Your task to perform on an android device: toggle data saver in the chrome app Image 0: 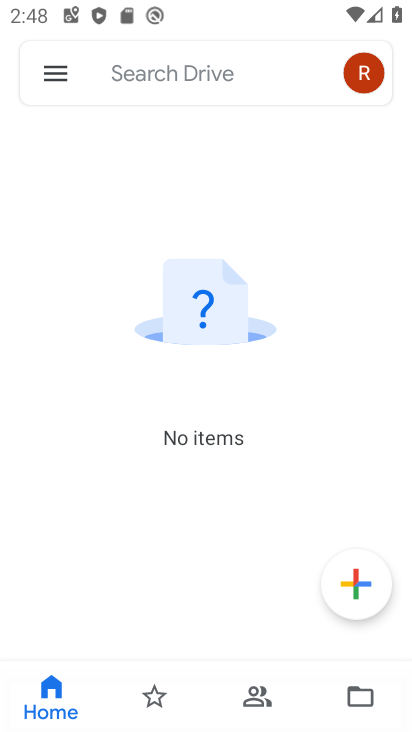
Step 0: press home button
Your task to perform on an android device: toggle data saver in the chrome app Image 1: 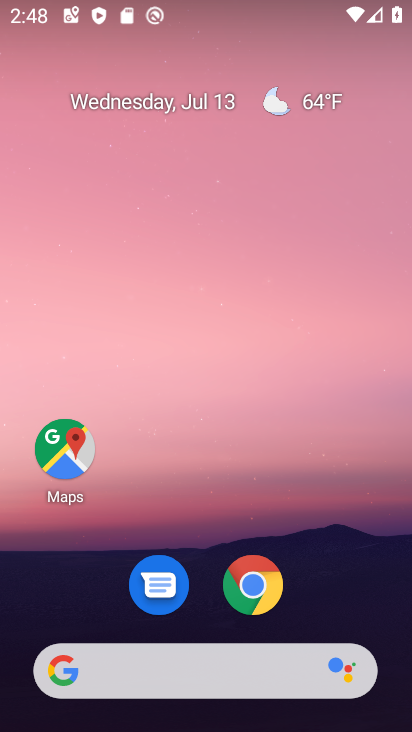
Step 1: click (252, 596)
Your task to perform on an android device: toggle data saver in the chrome app Image 2: 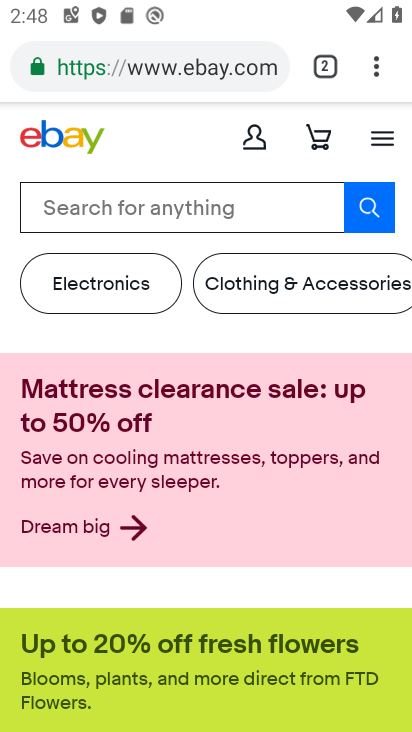
Step 2: drag from (374, 71) to (198, 592)
Your task to perform on an android device: toggle data saver in the chrome app Image 3: 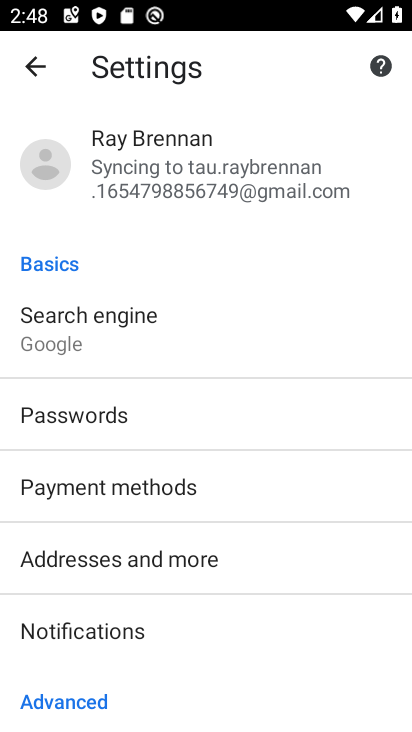
Step 3: drag from (158, 652) to (291, 298)
Your task to perform on an android device: toggle data saver in the chrome app Image 4: 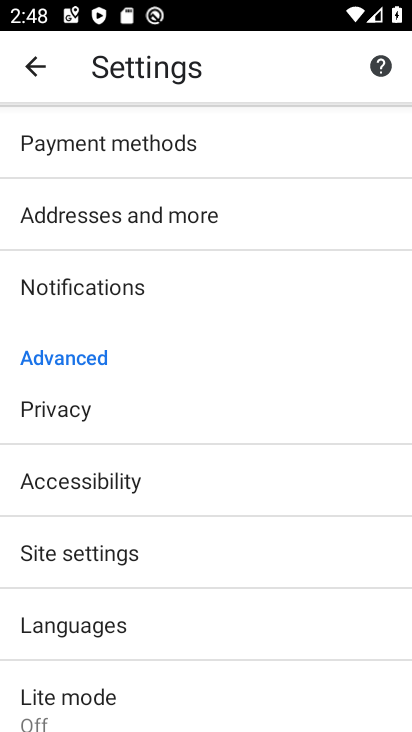
Step 4: click (111, 695)
Your task to perform on an android device: toggle data saver in the chrome app Image 5: 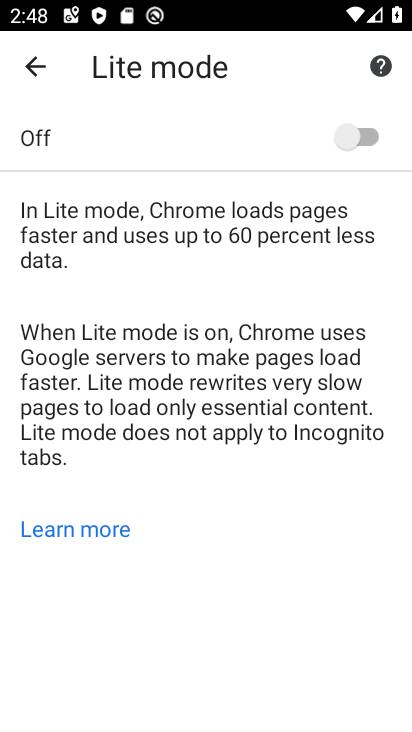
Step 5: click (367, 135)
Your task to perform on an android device: toggle data saver in the chrome app Image 6: 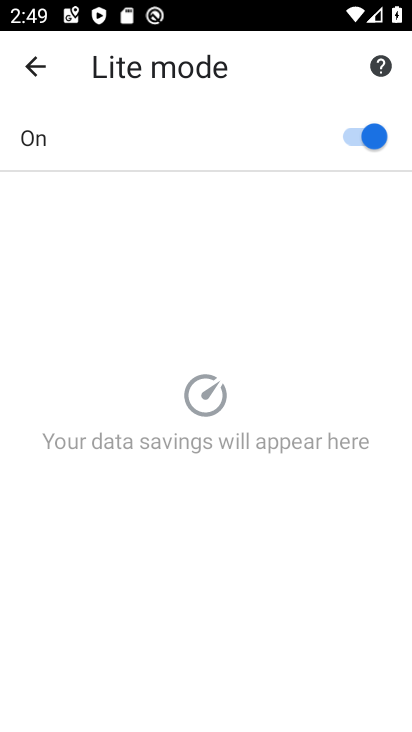
Step 6: task complete